Your task to perform on an android device: toggle notifications settings in the gmail app Image 0: 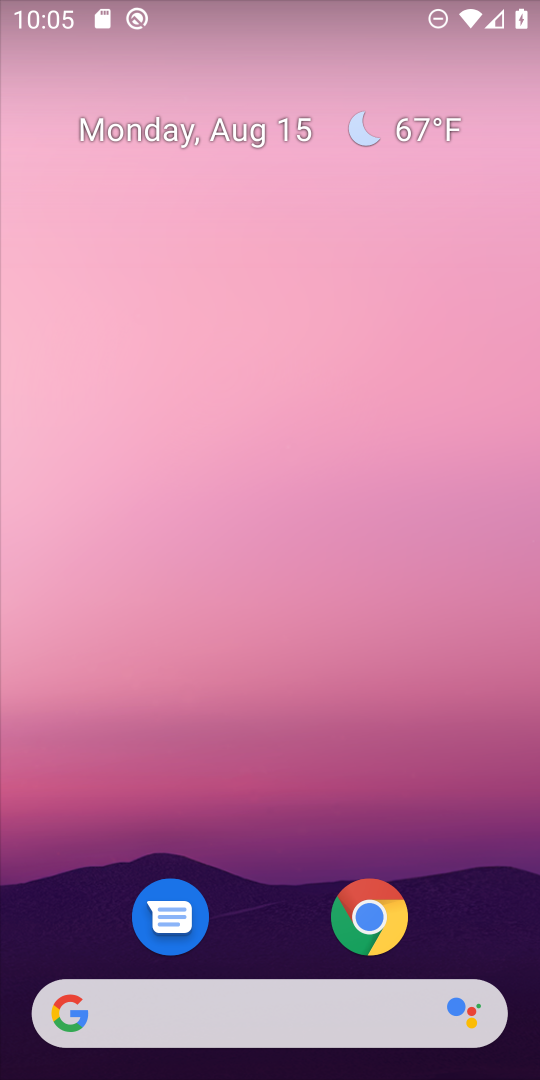
Step 0: drag from (281, 832) to (367, 0)
Your task to perform on an android device: toggle notifications settings in the gmail app Image 1: 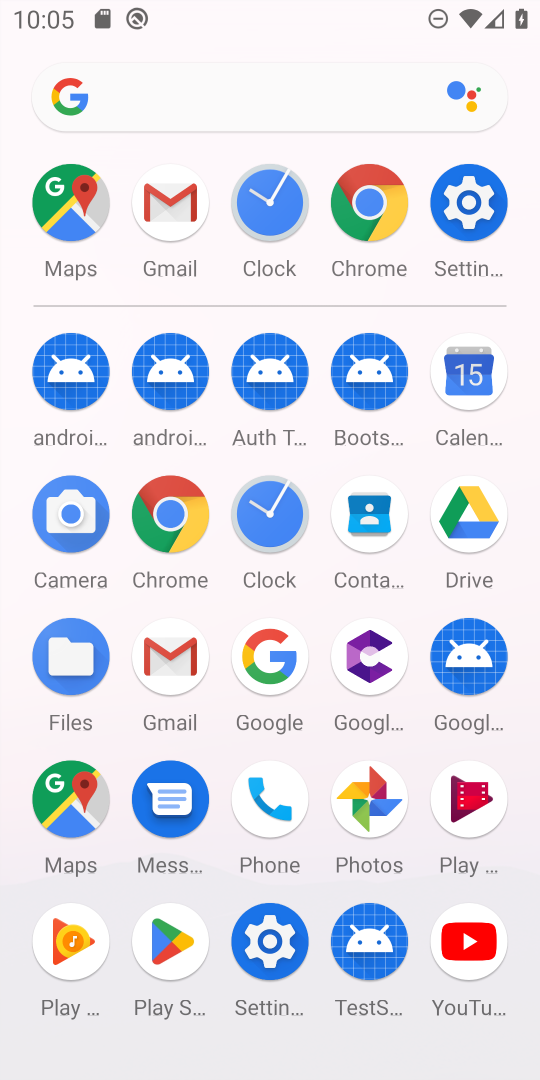
Step 1: click (178, 201)
Your task to perform on an android device: toggle notifications settings in the gmail app Image 2: 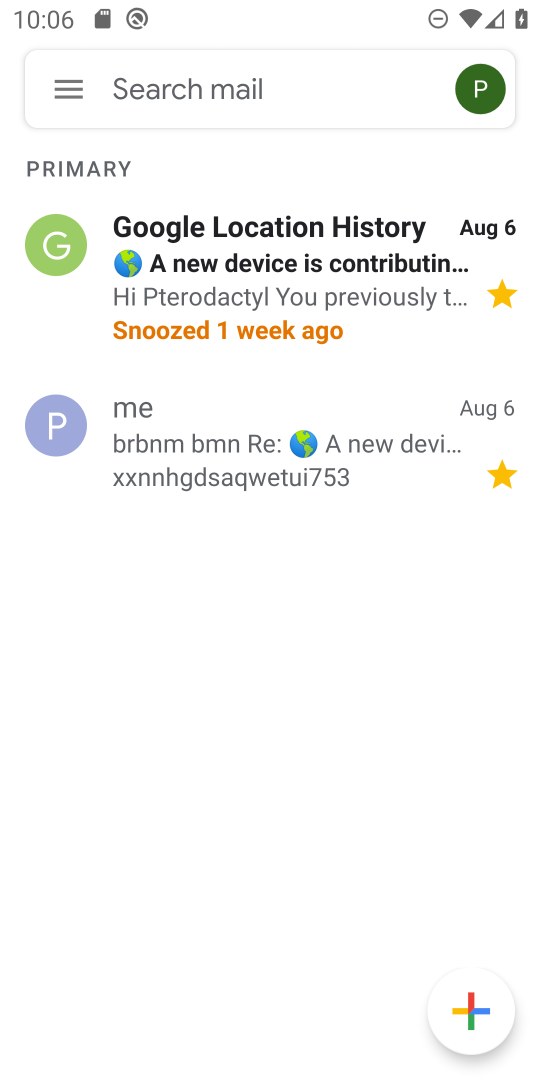
Step 2: click (68, 80)
Your task to perform on an android device: toggle notifications settings in the gmail app Image 3: 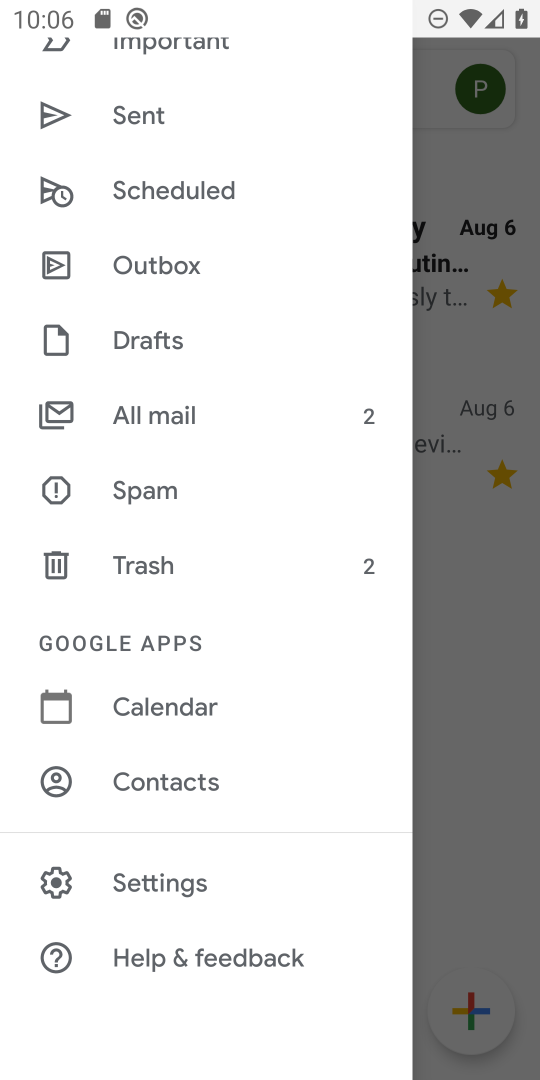
Step 3: click (176, 879)
Your task to perform on an android device: toggle notifications settings in the gmail app Image 4: 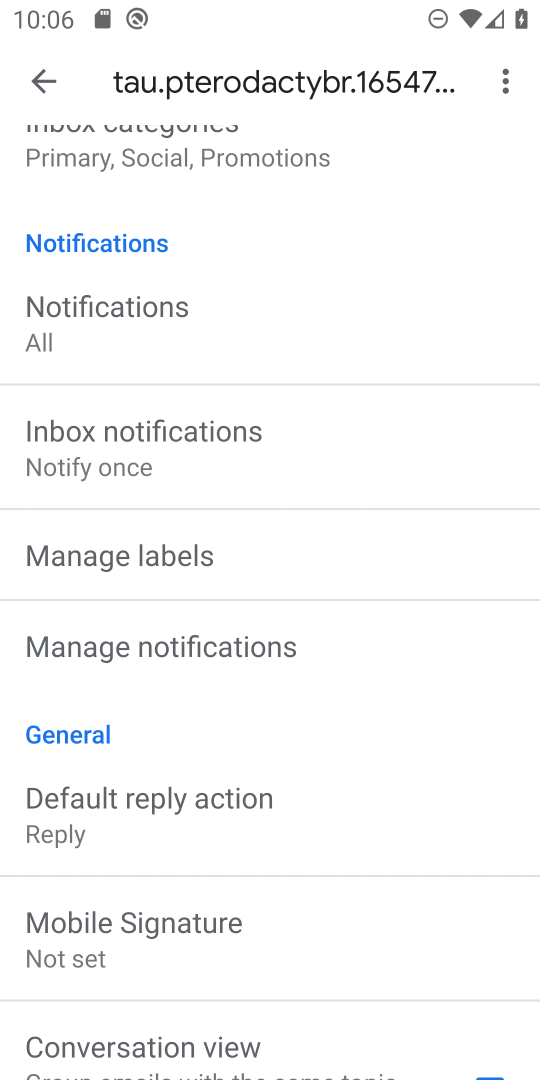
Step 4: click (281, 658)
Your task to perform on an android device: toggle notifications settings in the gmail app Image 5: 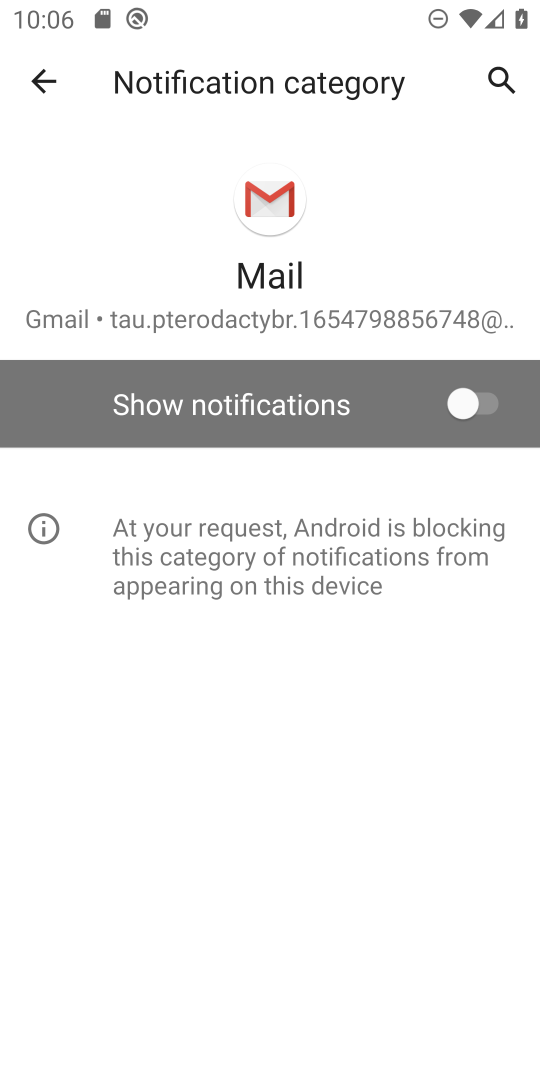
Step 5: click (476, 391)
Your task to perform on an android device: toggle notifications settings in the gmail app Image 6: 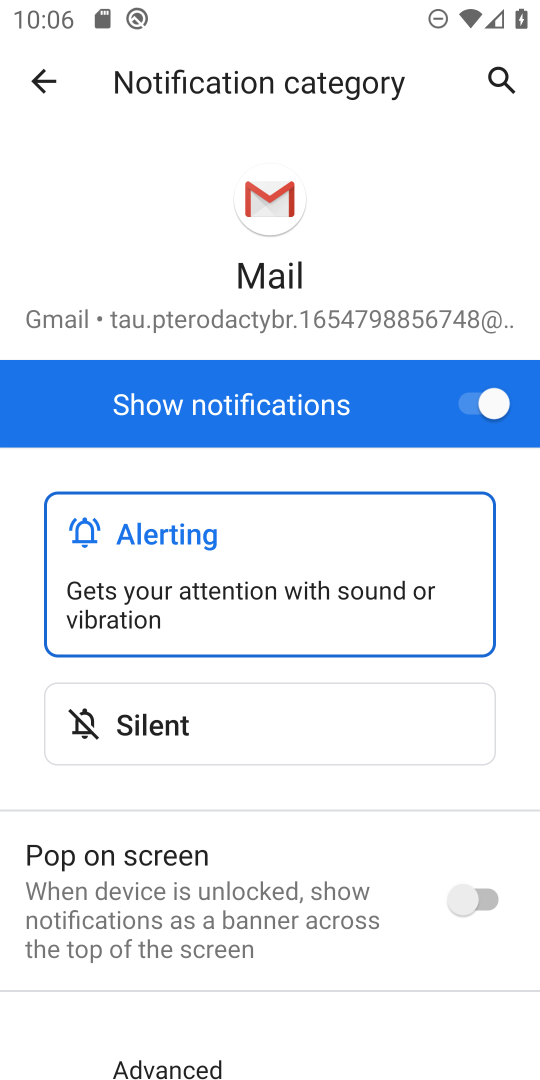
Step 6: task complete